Your task to perform on an android device: delete a single message in the gmail app Image 0: 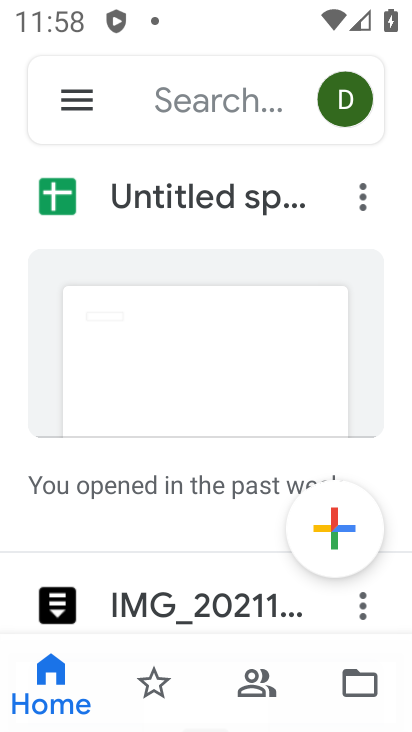
Step 0: press home button
Your task to perform on an android device: delete a single message in the gmail app Image 1: 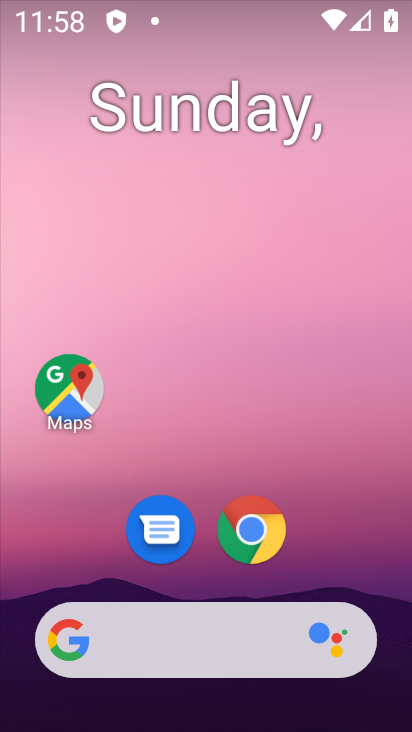
Step 1: drag from (227, 626) to (195, 30)
Your task to perform on an android device: delete a single message in the gmail app Image 2: 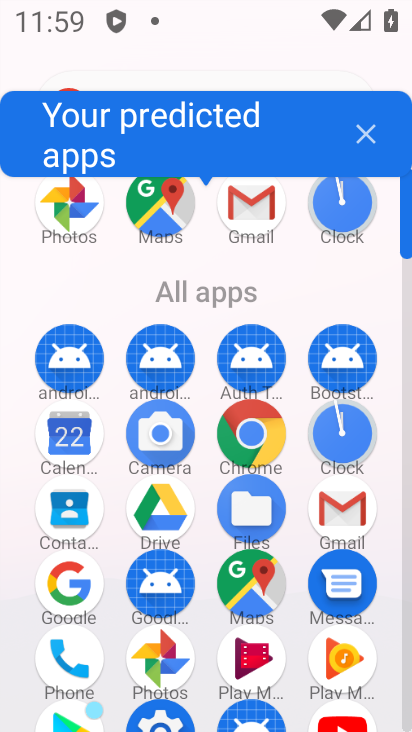
Step 2: click (337, 525)
Your task to perform on an android device: delete a single message in the gmail app Image 3: 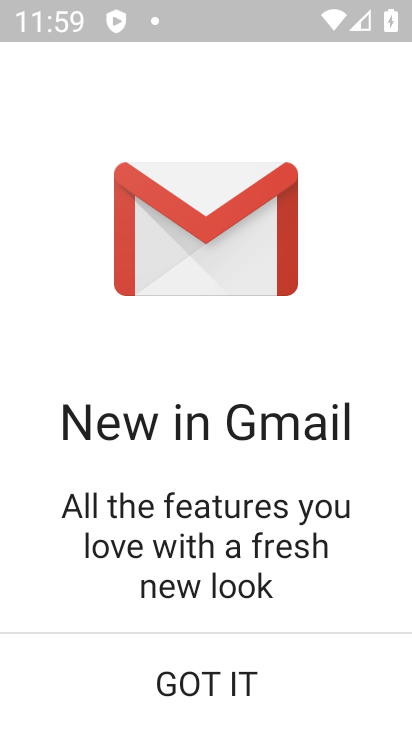
Step 3: click (246, 675)
Your task to perform on an android device: delete a single message in the gmail app Image 4: 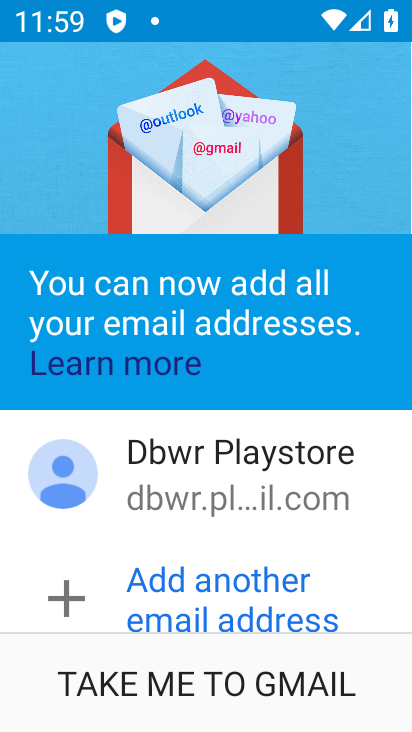
Step 4: click (225, 671)
Your task to perform on an android device: delete a single message in the gmail app Image 5: 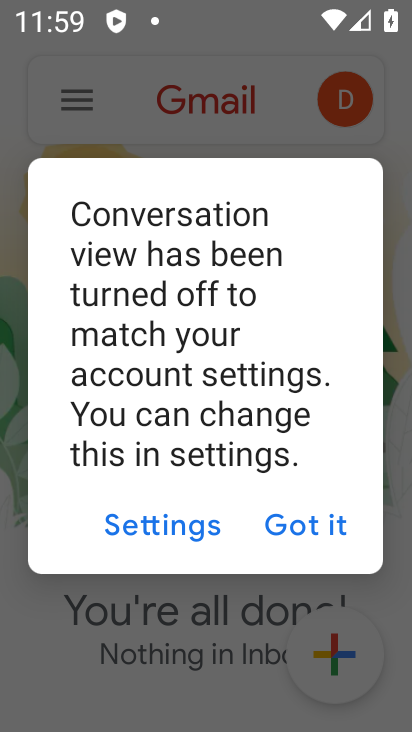
Step 5: click (312, 520)
Your task to perform on an android device: delete a single message in the gmail app Image 6: 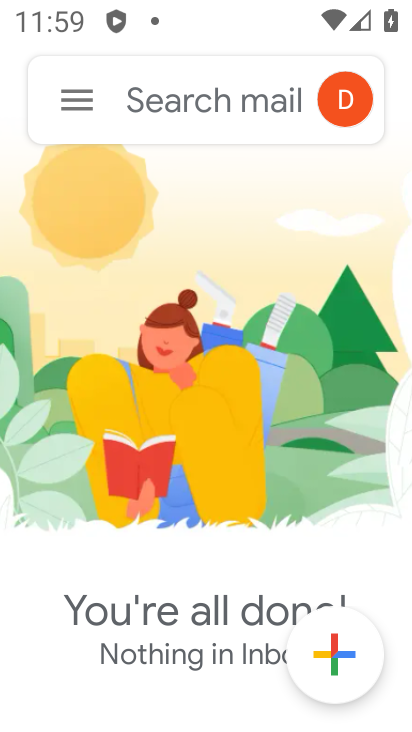
Step 6: click (75, 114)
Your task to perform on an android device: delete a single message in the gmail app Image 7: 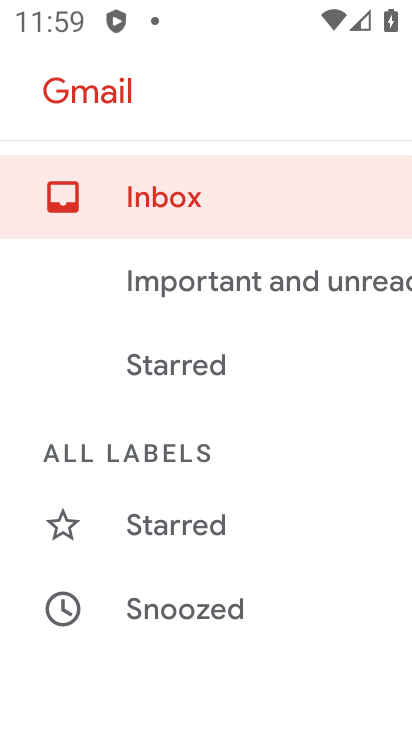
Step 7: drag from (174, 567) to (145, 40)
Your task to perform on an android device: delete a single message in the gmail app Image 8: 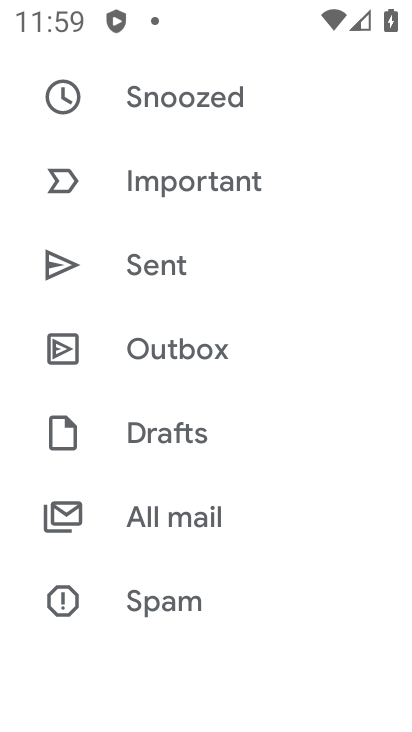
Step 8: click (178, 530)
Your task to perform on an android device: delete a single message in the gmail app Image 9: 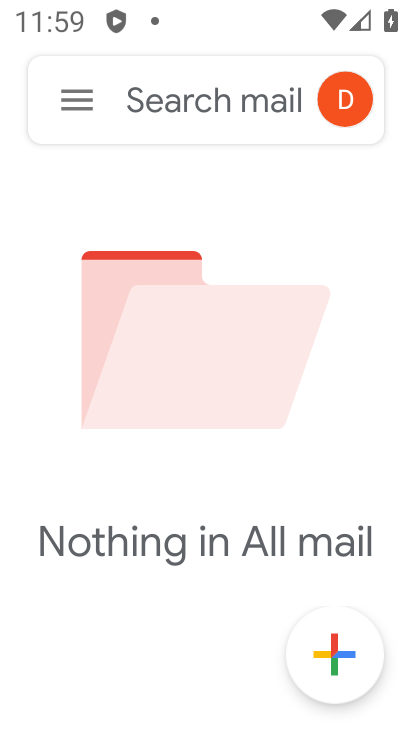
Step 9: task complete